Your task to perform on an android device: open app "Nova Launcher" Image 0: 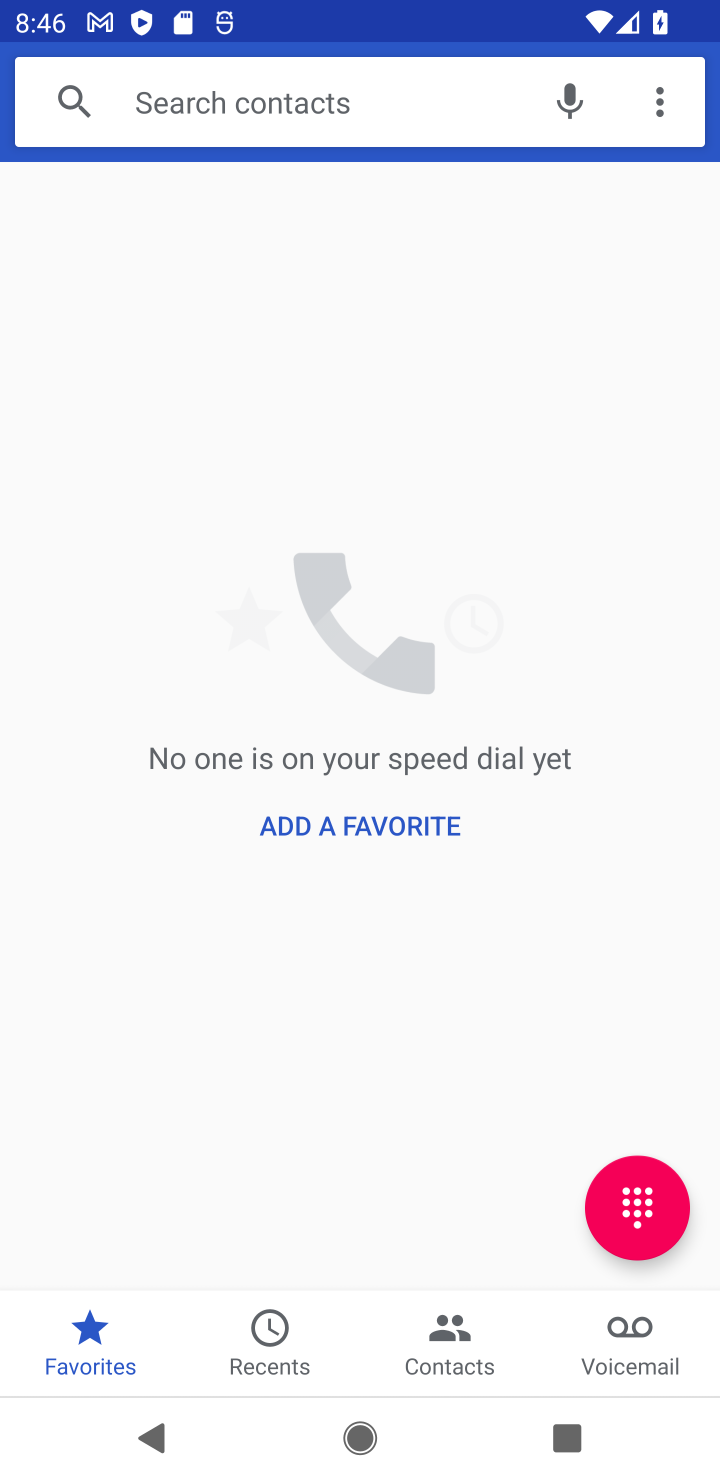
Step 0: press home button
Your task to perform on an android device: open app "Nova Launcher" Image 1: 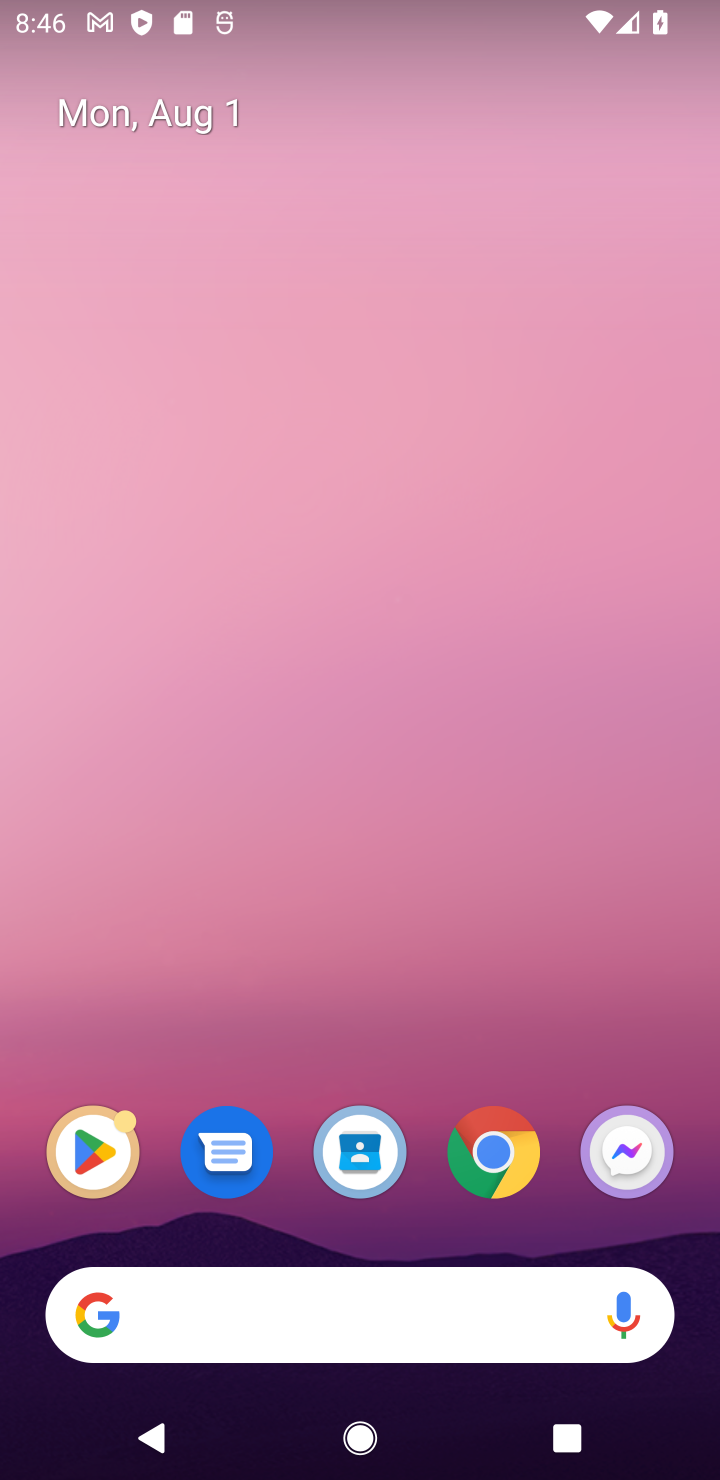
Step 1: drag from (359, 1243) to (329, 147)
Your task to perform on an android device: open app "Nova Launcher" Image 2: 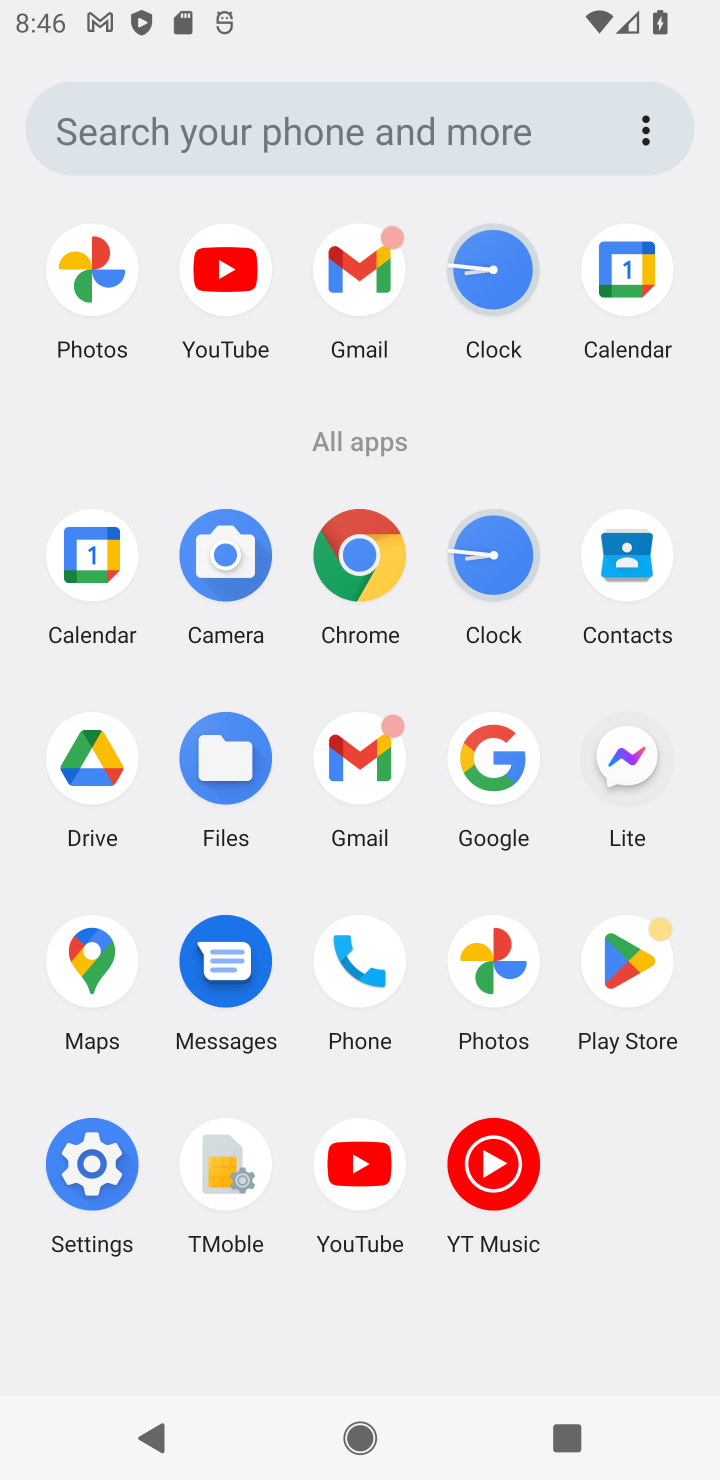
Step 2: click (606, 961)
Your task to perform on an android device: open app "Nova Launcher" Image 3: 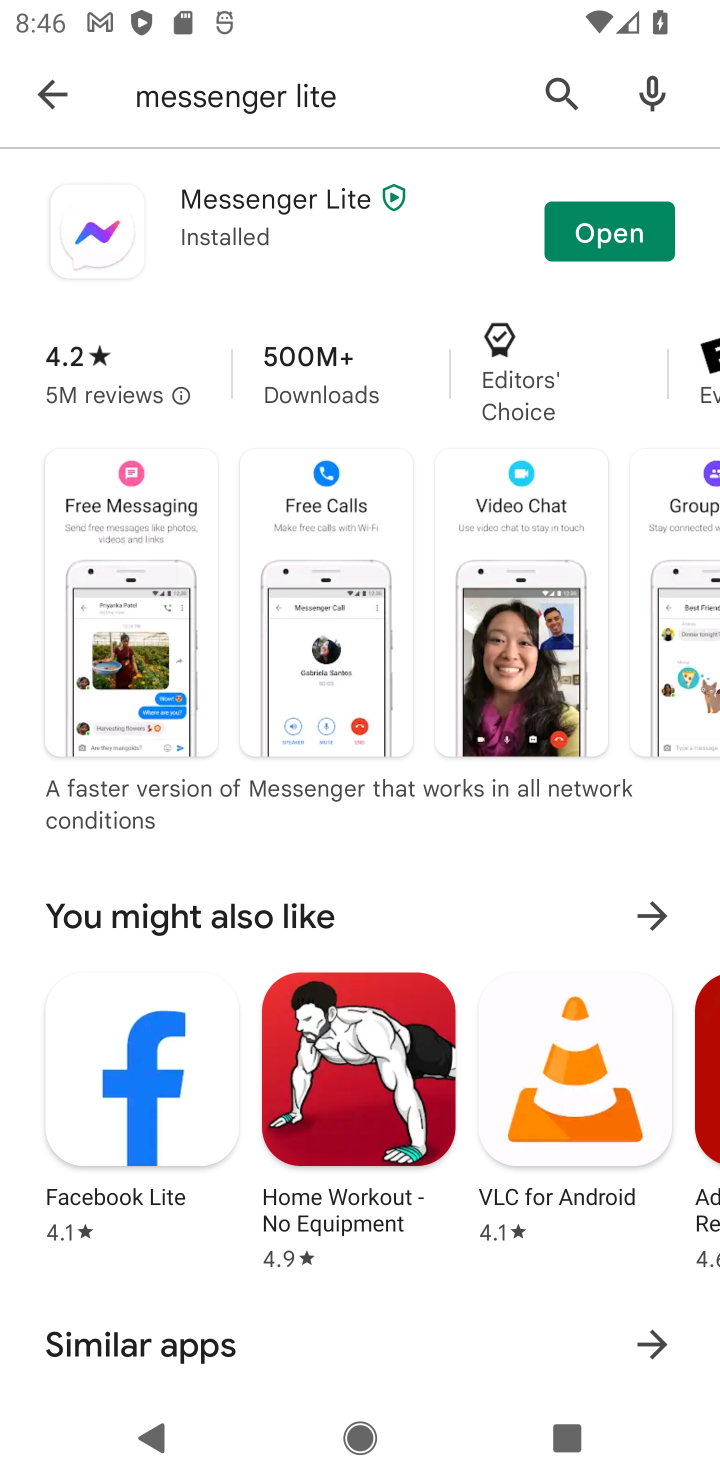
Step 3: click (22, 79)
Your task to perform on an android device: open app "Nova Launcher" Image 4: 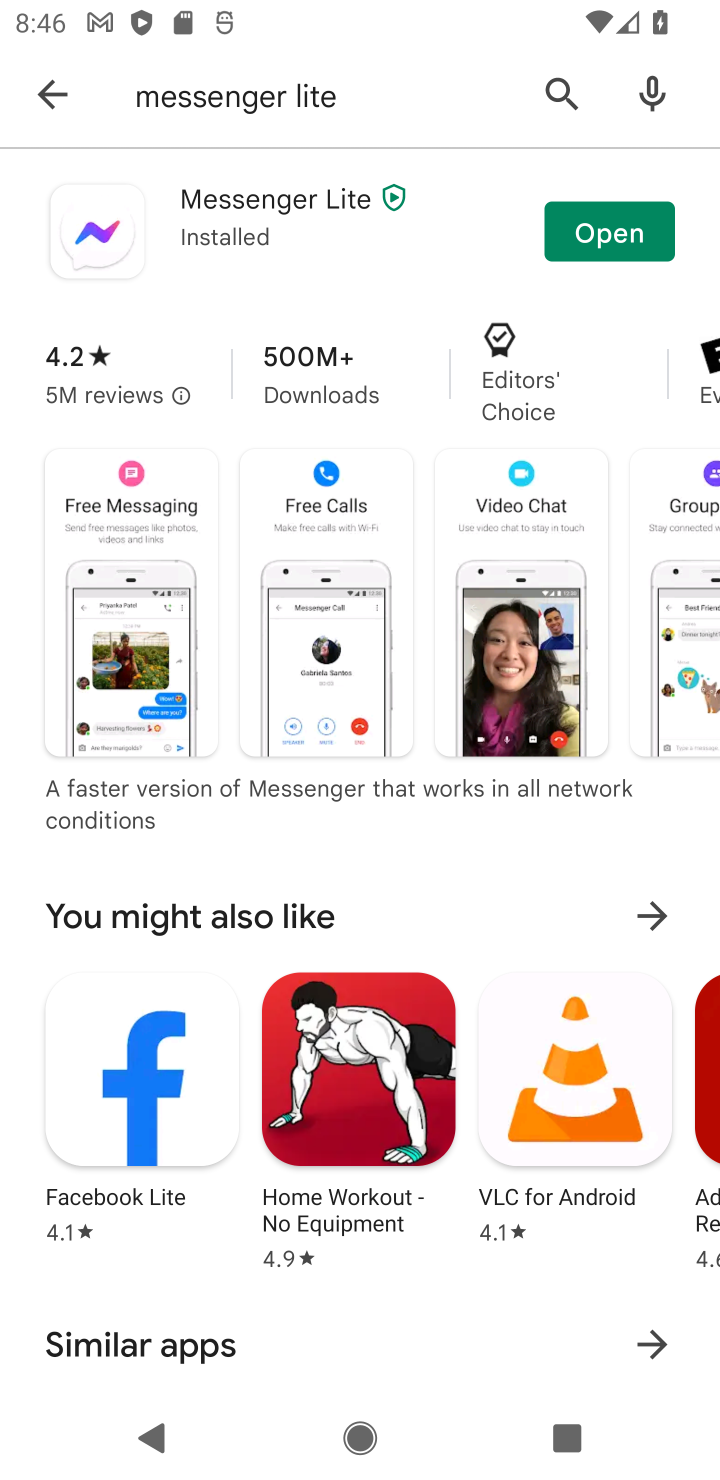
Step 4: click (60, 96)
Your task to perform on an android device: open app "Nova Launcher" Image 5: 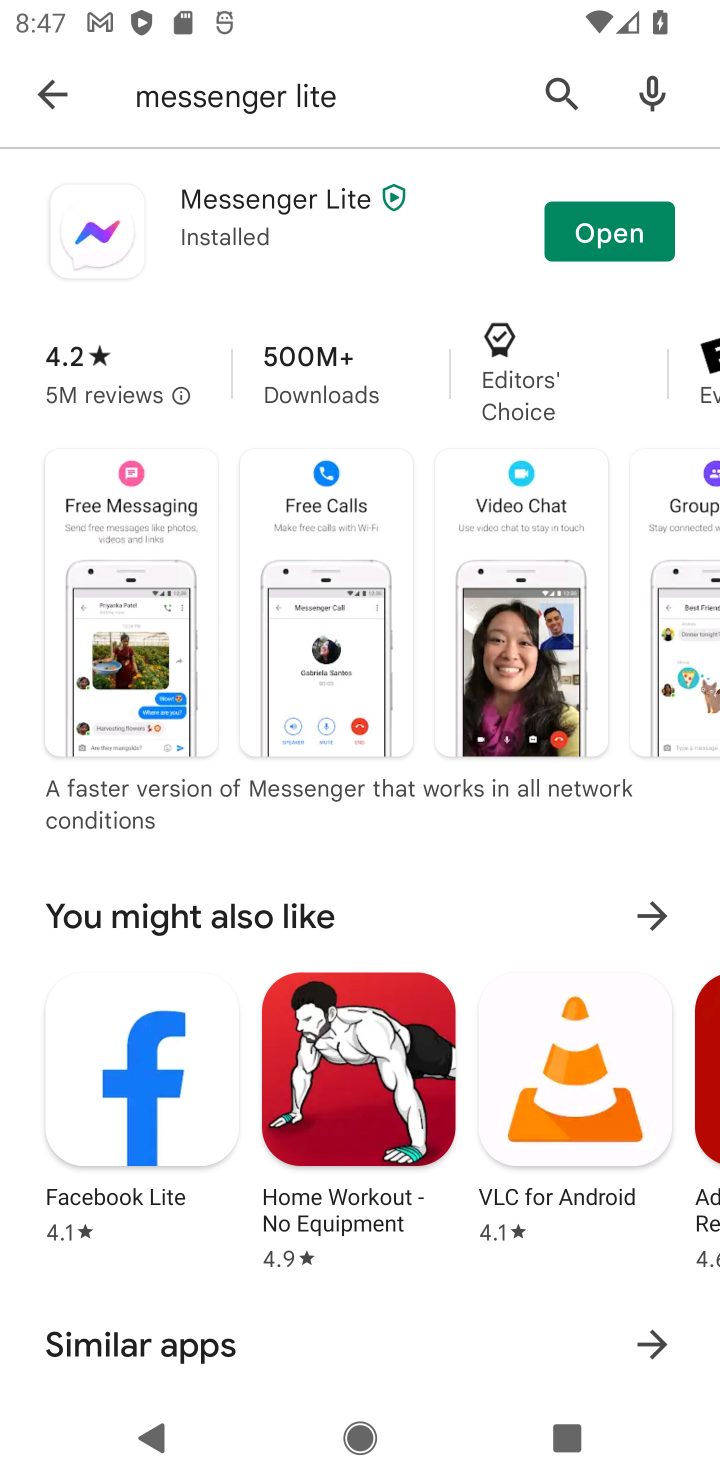
Step 5: click (553, 82)
Your task to perform on an android device: open app "Nova Launcher" Image 6: 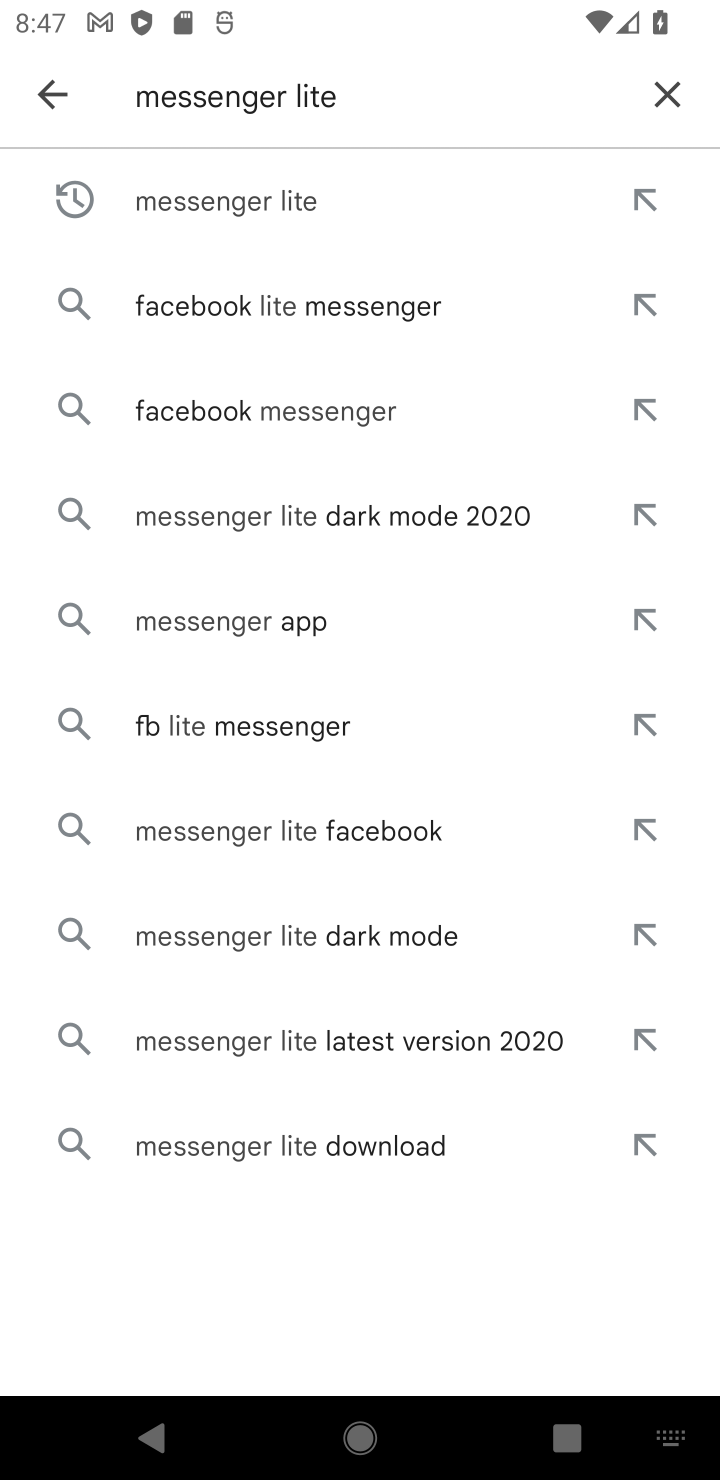
Step 6: click (676, 97)
Your task to perform on an android device: open app "Nova Launcher" Image 7: 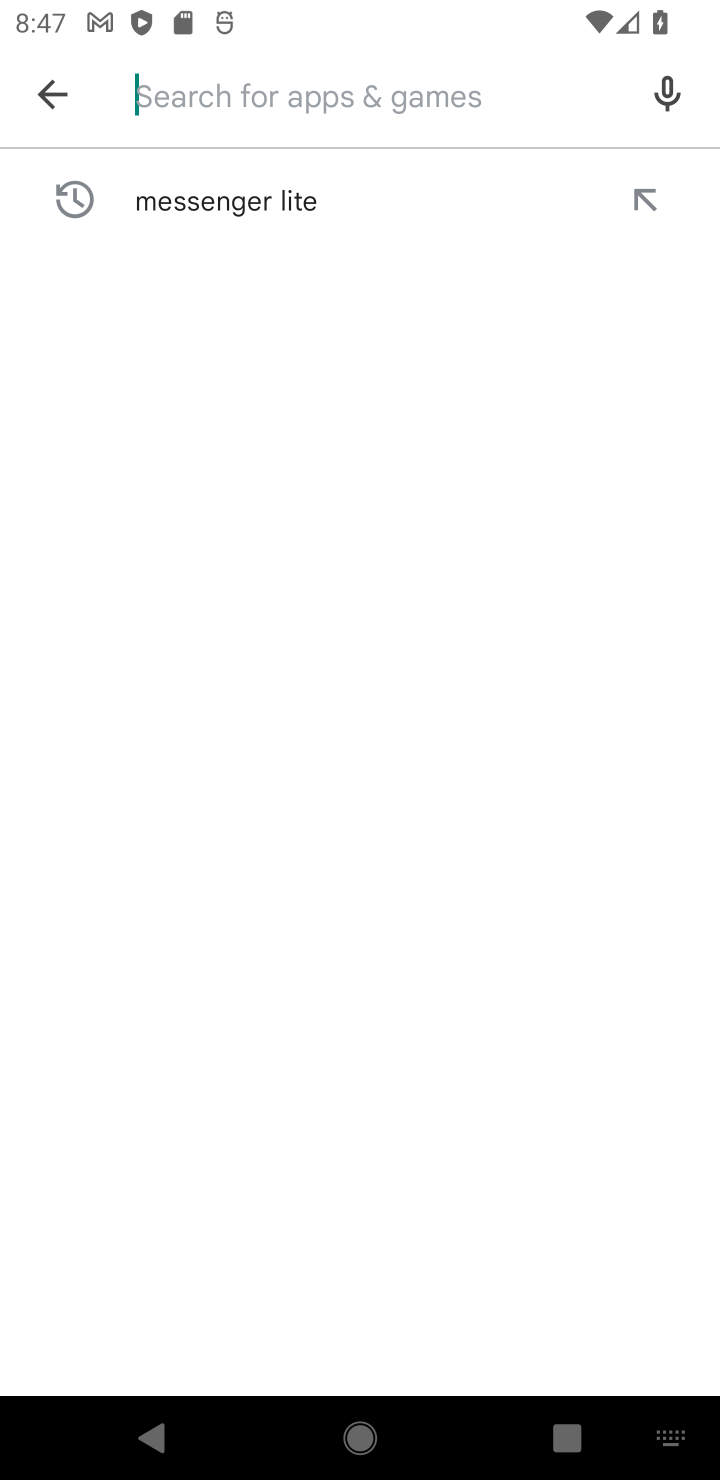
Step 7: type "Nova Launcher"
Your task to perform on an android device: open app "Nova Launcher" Image 8: 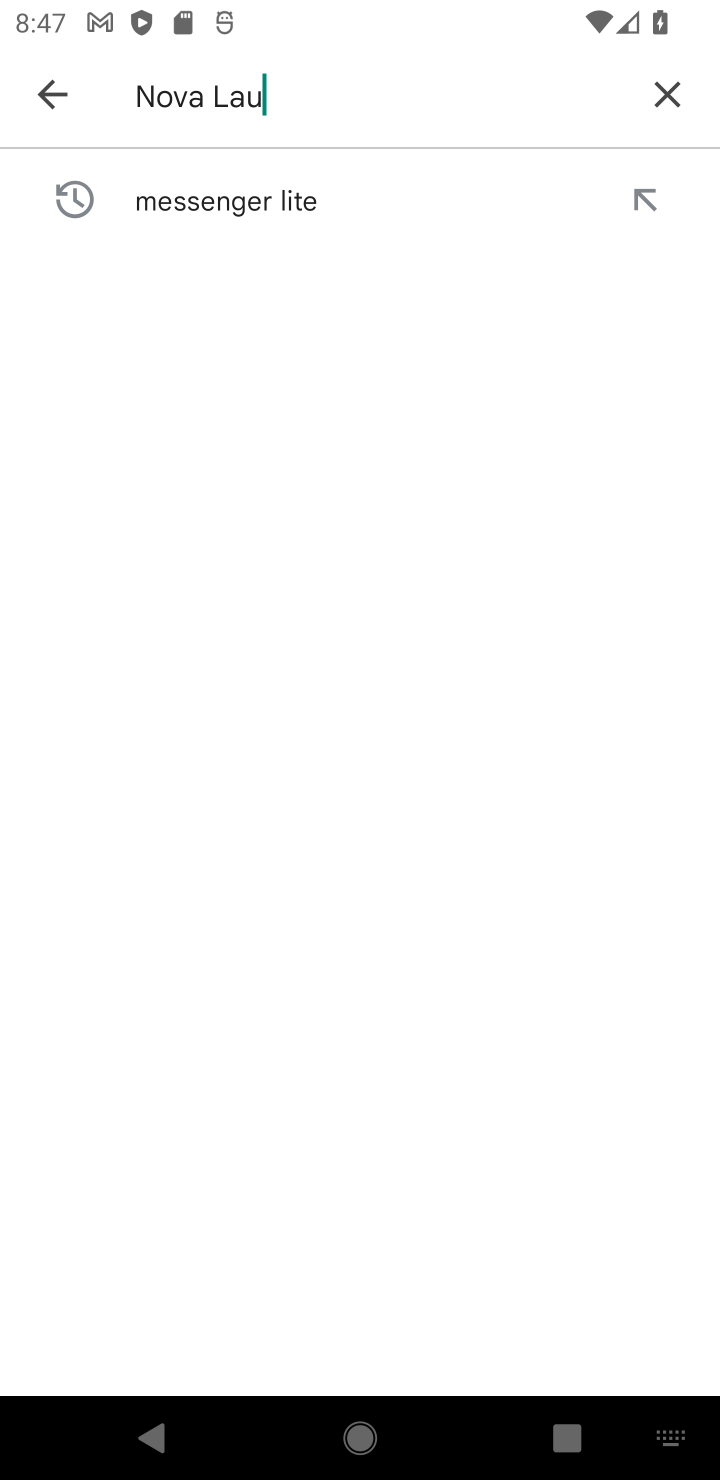
Step 8: type ""
Your task to perform on an android device: open app "Nova Launcher" Image 9: 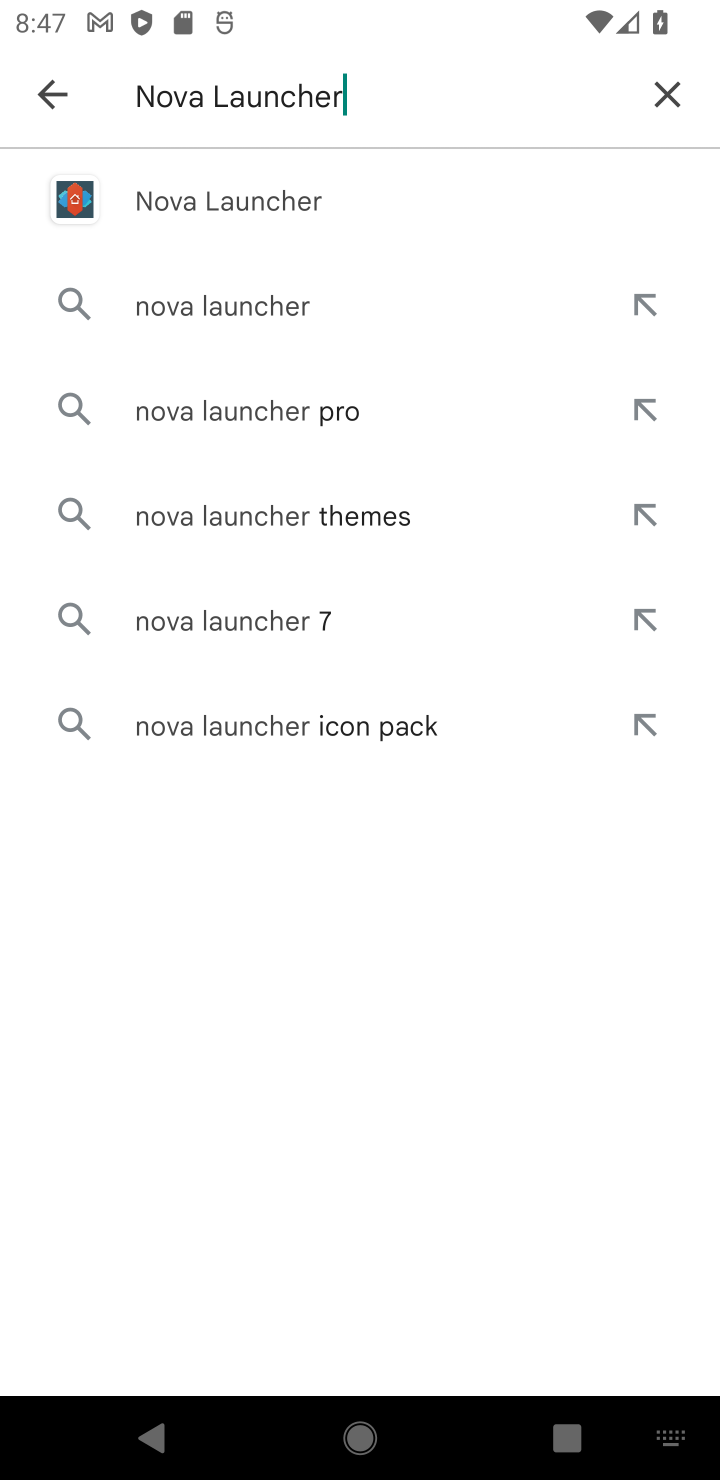
Step 9: click (282, 200)
Your task to perform on an android device: open app "Nova Launcher" Image 10: 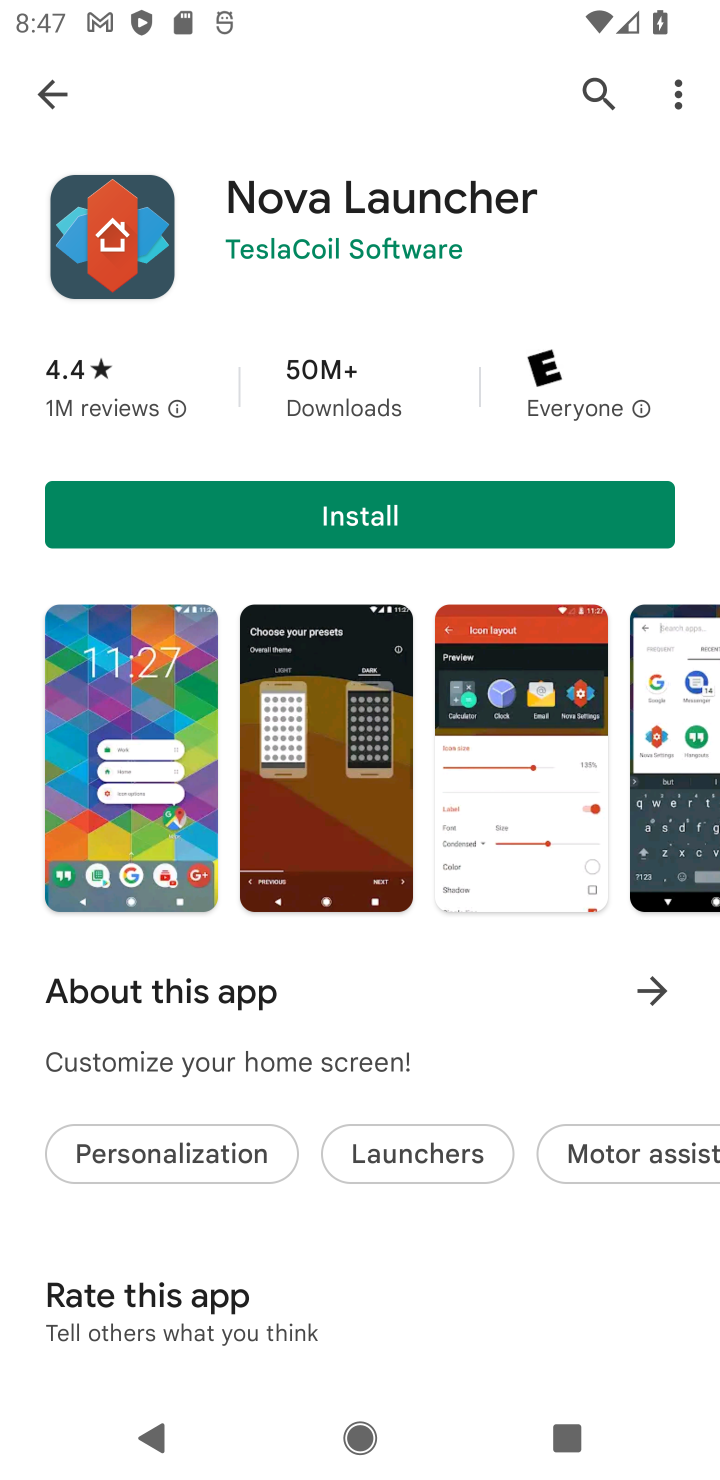
Step 10: task complete